Your task to perform on an android device: delete location history Image 0: 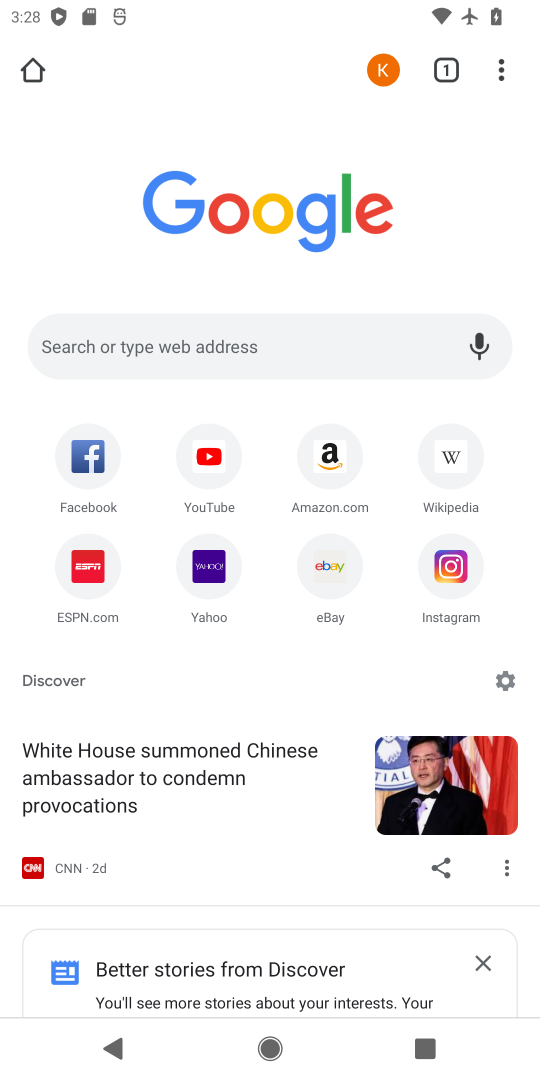
Step 0: click (188, 140)
Your task to perform on an android device: delete location history Image 1: 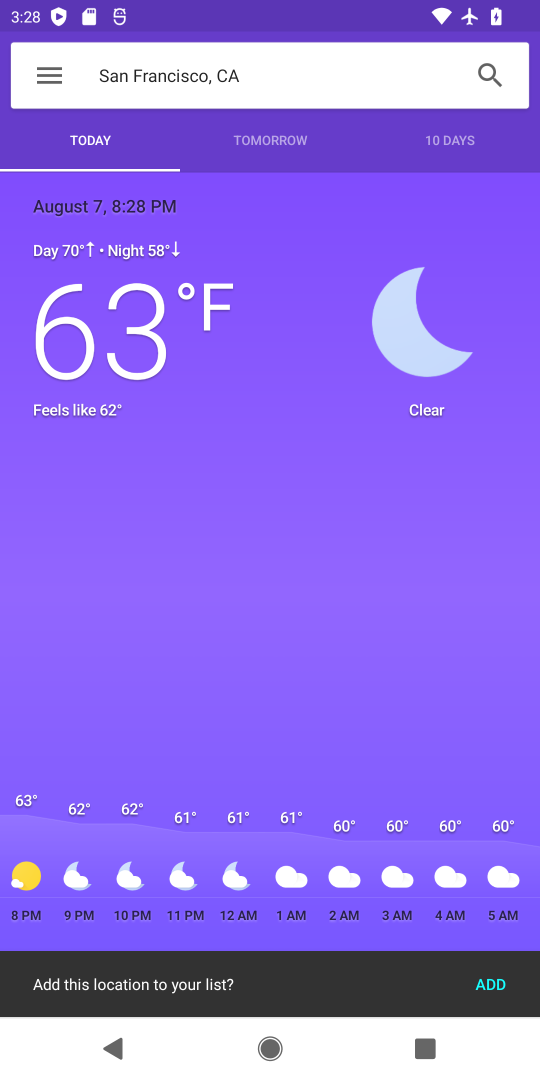
Step 1: press home button
Your task to perform on an android device: delete location history Image 2: 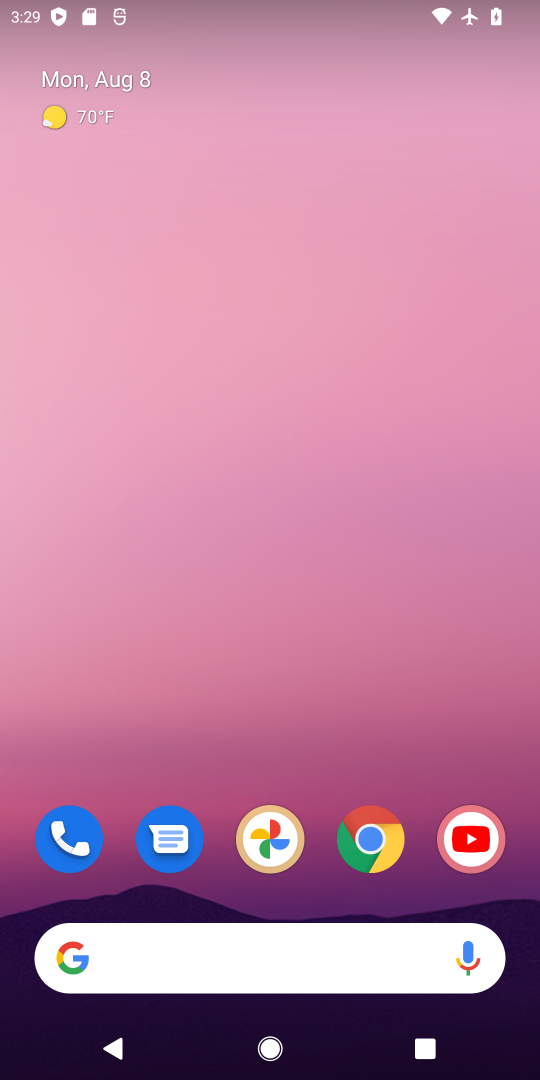
Step 2: drag from (422, 698) to (470, 162)
Your task to perform on an android device: delete location history Image 3: 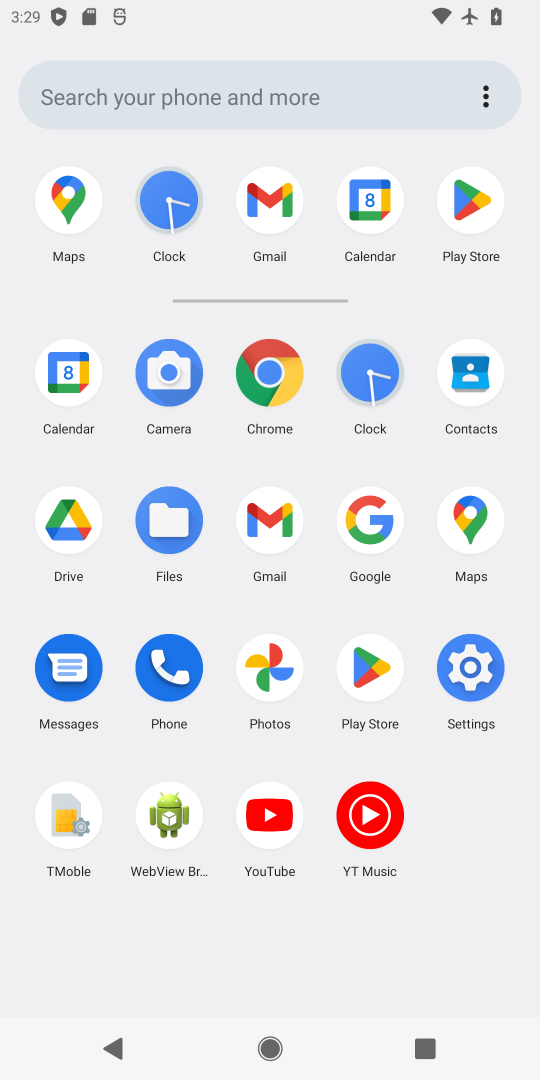
Step 3: click (476, 521)
Your task to perform on an android device: delete location history Image 4: 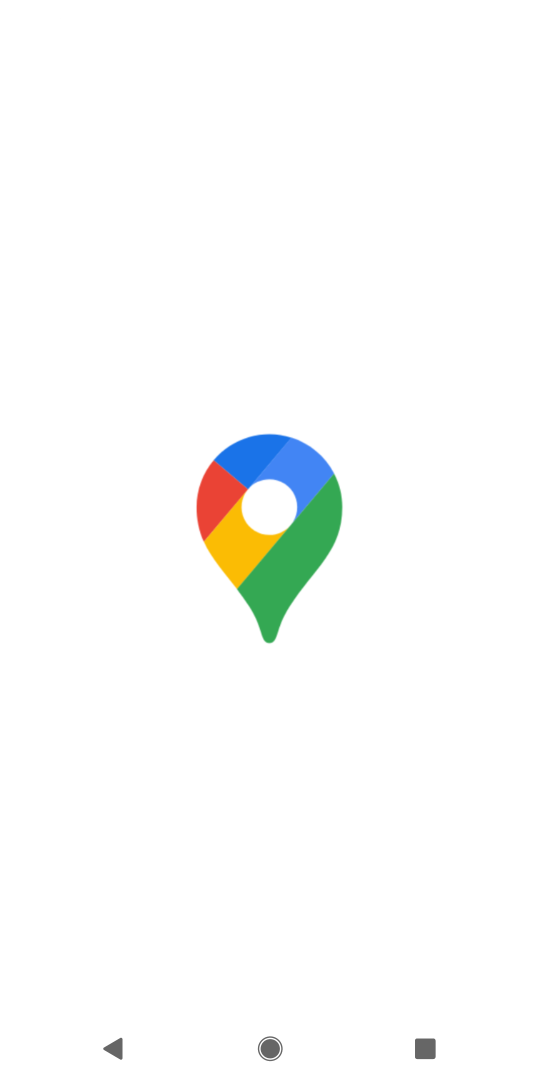
Step 4: task complete